Your task to perform on an android device: Open the map Image 0: 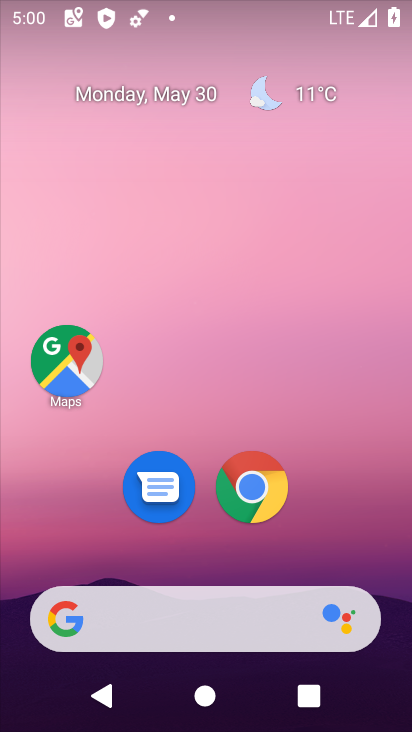
Step 0: click (67, 360)
Your task to perform on an android device: Open the map Image 1: 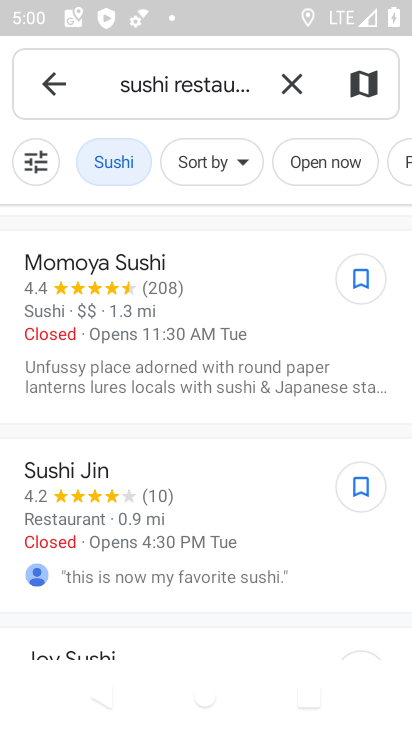
Step 1: click (286, 79)
Your task to perform on an android device: Open the map Image 2: 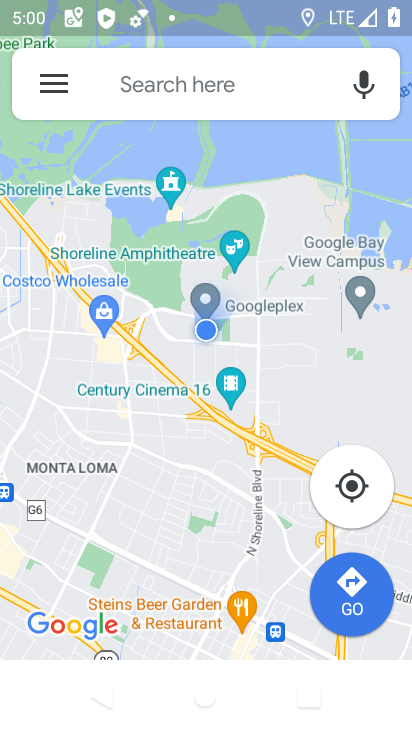
Step 2: task complete